Your task to perform on an android device: turn on the 12-hour format for clock Image 0: 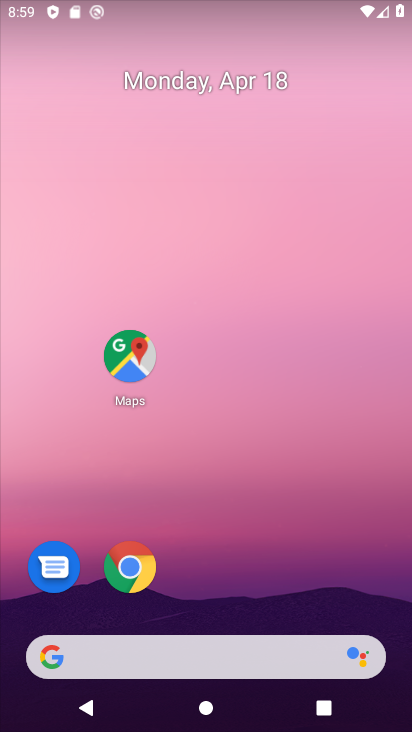
Step 0: drag from (261, 661) to (319, 365)
Your task to perform on an android device: turn on the 12-hour format for clock Image 1: 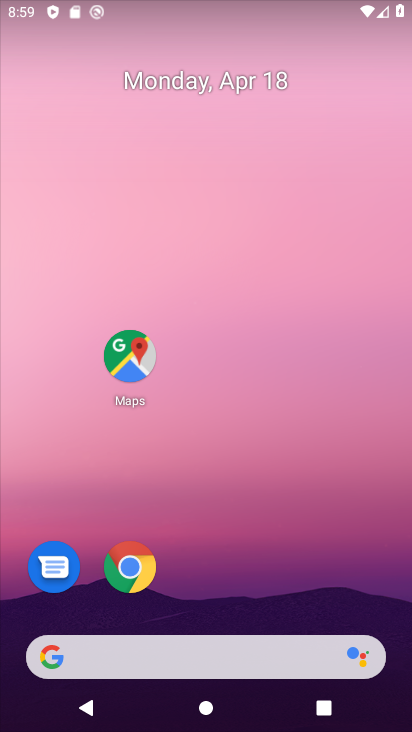
Step 1: drag from (266, 640) to (374, 205)
Your task to perform on an android device: turn on the 12-hour format for clock Image 2: 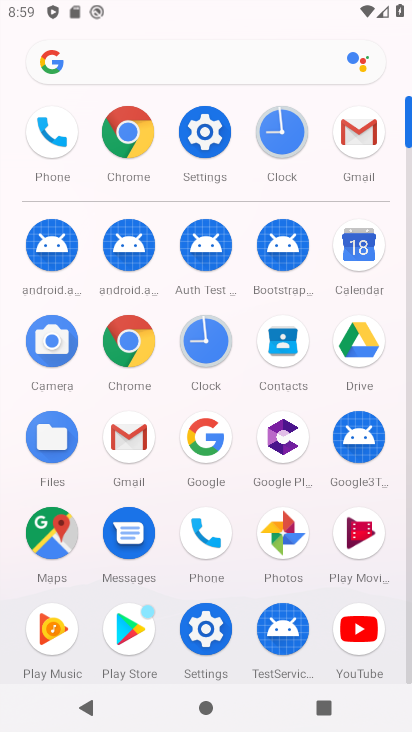
Step 2: click (288, 141)
Your task to perform on an android device: turn on the 12-hour format for clock Image 3: 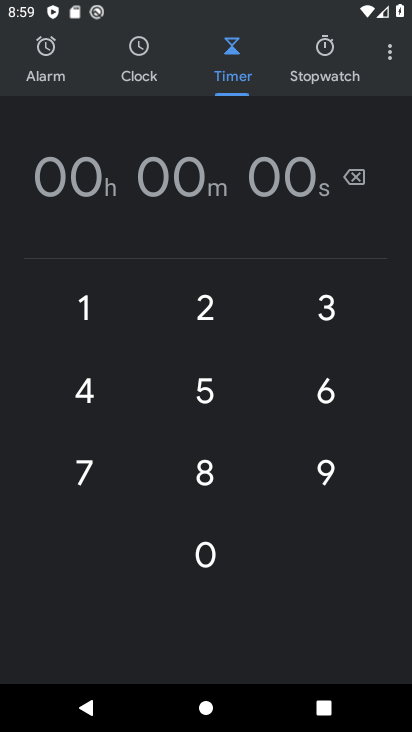
Step 3: click (383, 64)
Your task to perform on an android device: turn on the 12-hour format for clock Image 4: 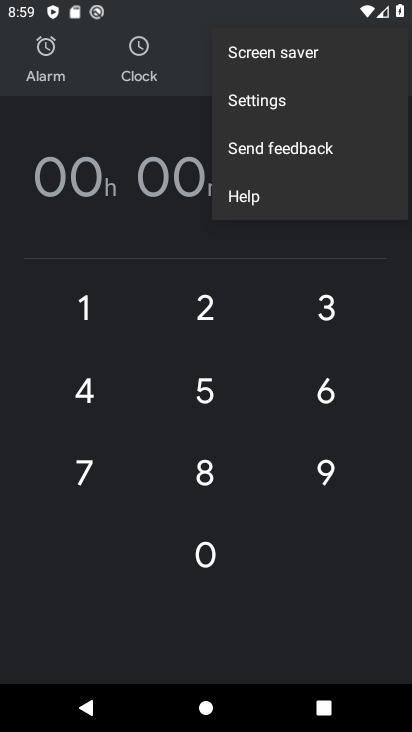
Step 4: click (293, 112)
Your task to perform on an android device: turn on the 12-hour format for clock Image 5: 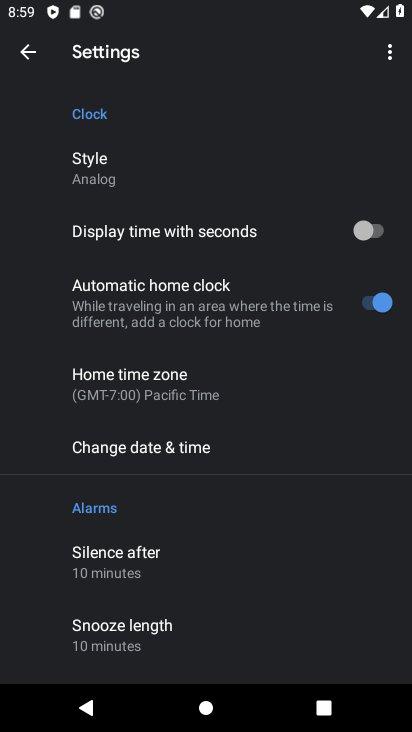
Step 5: click (161, 436)
Your task to perform on an android device: turn on the 12-hour format for clock Image 6: 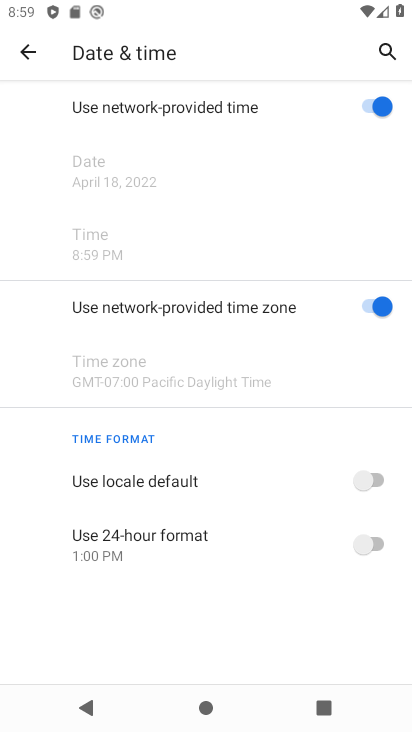
Step 6: click (326, 486)
Your task to perform on an android device: turn on the 12-hour format for clock Image 7: 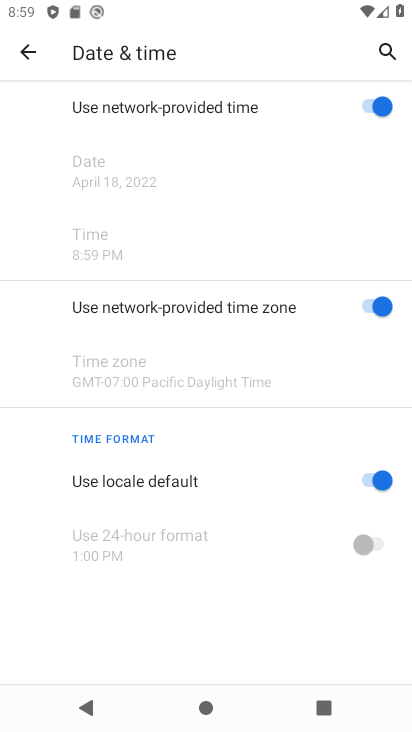
Step 7: click (354, 543)
Your task to perform on an android device: turn on the 12-hour format for clock Image 8: 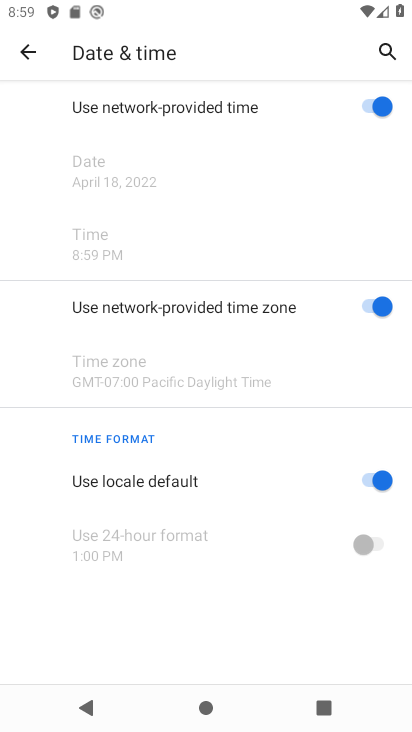
Step 8: click (354, 543)
Your task to perform on an android device: turn on the 12-hour format for clock Image 9: 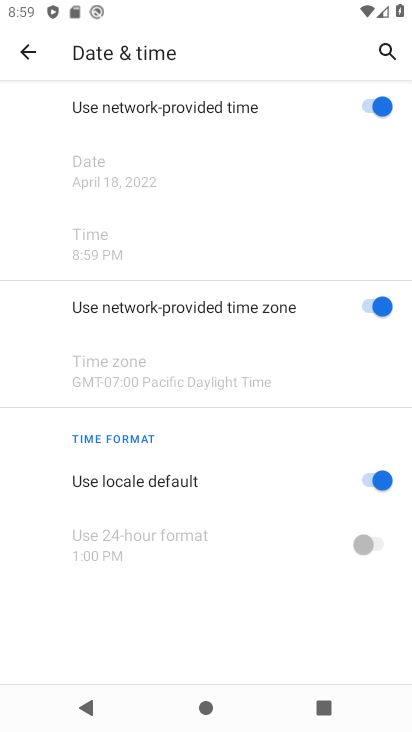
Step 9: task complete